Your task to perform on an android device: toggle notification dots Image 0: 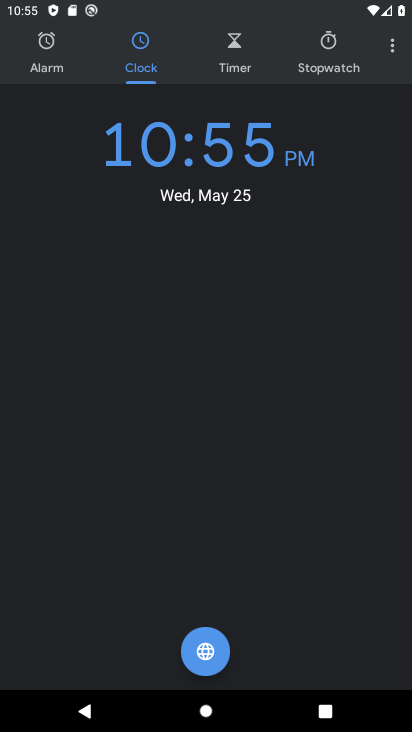
Step 0: press home button
Your task to perform on an android device: toggle notification dots Image 1: 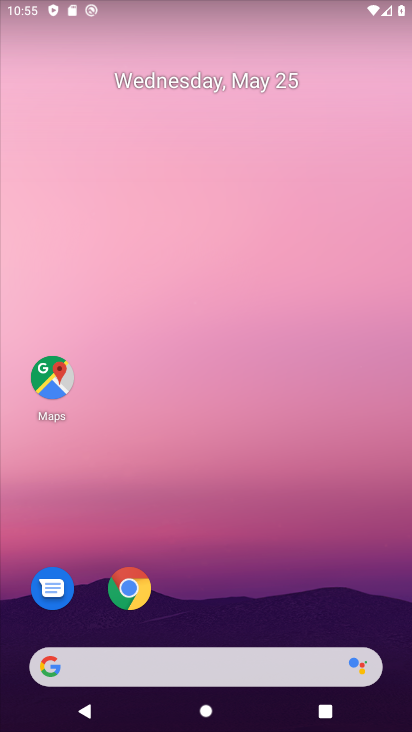
Step 1: drag from (206, 614) to (221, 92)
Your task to perform on an android device: toggle notification dots Image 2: 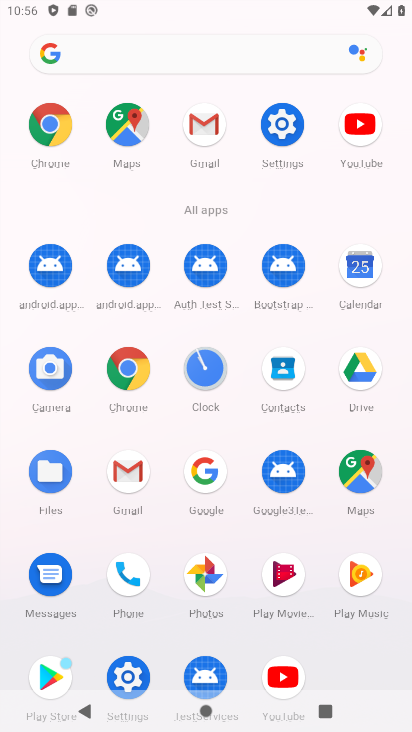
Step 2: click (277, 117)
Your task to perform on an android device: toggle notification dots Image 3: 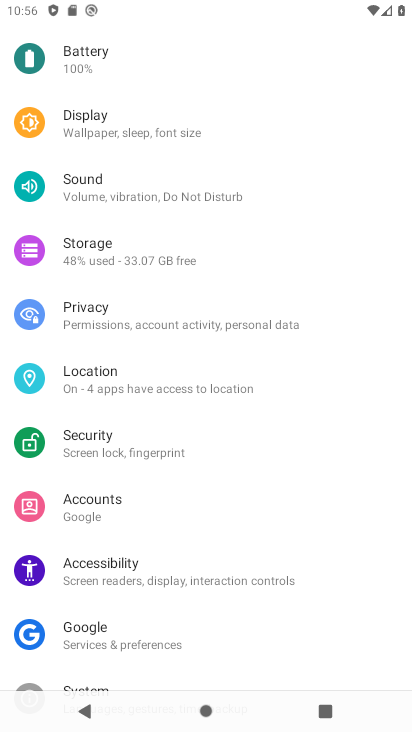
Step 3: drag from (204, 140) to (179, 607)
Your task to perform on an android device: toggle notification dots Image 4: 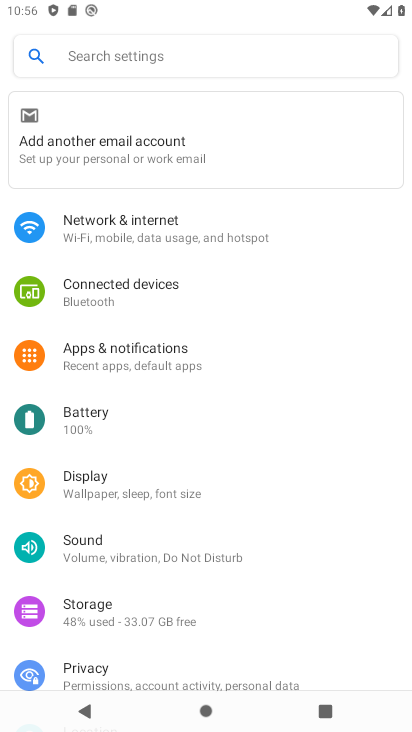
Step 4: click (101, 360)
Your task to perform on an android device: toggle notification dots Image 5: 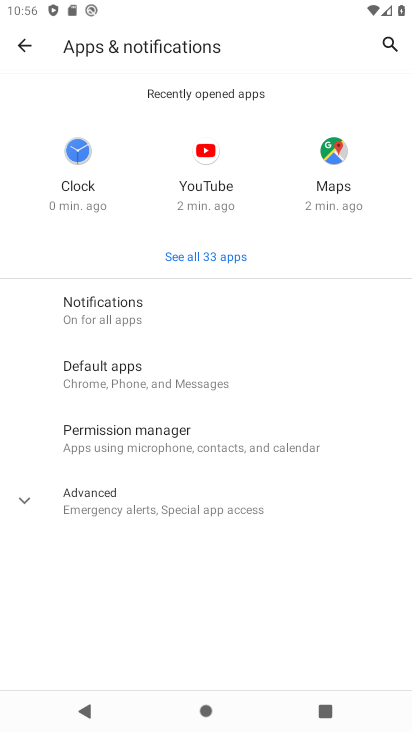
Step 5: click (131, 315)
Your task to perform on an android device: toggle notification dots Image 6: 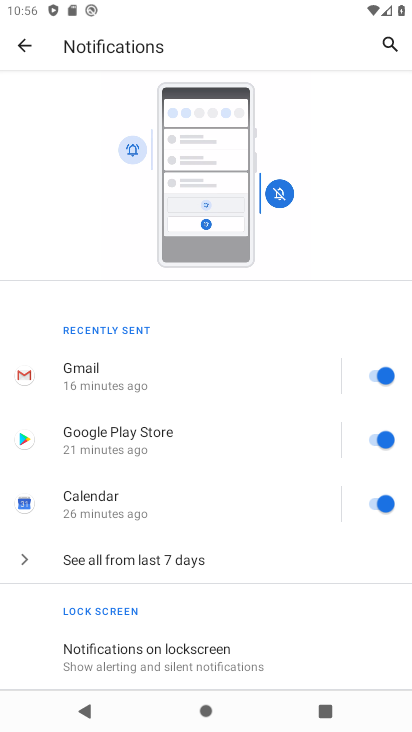
Step 6: drag from (177, 676) to (211, 314)
Your task to perform on an android device: toggle notification dots Image 7: 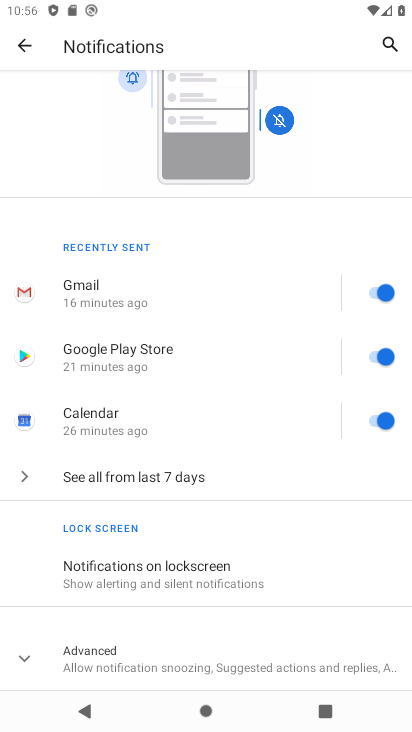
Step 7: drag from (141, 642) to (255, 299)
Your task to perform on an android device: toggle notification dots Image 8: 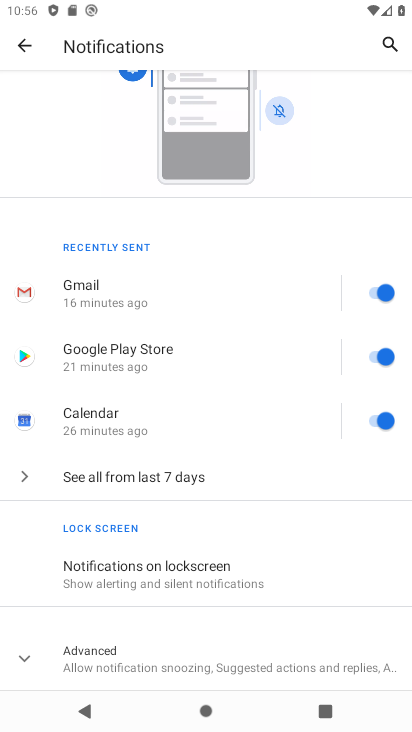
Step 8: drag from (149, 616) to (176, 292)
Your task to perform on an android device: toggle notification dots Image 9: 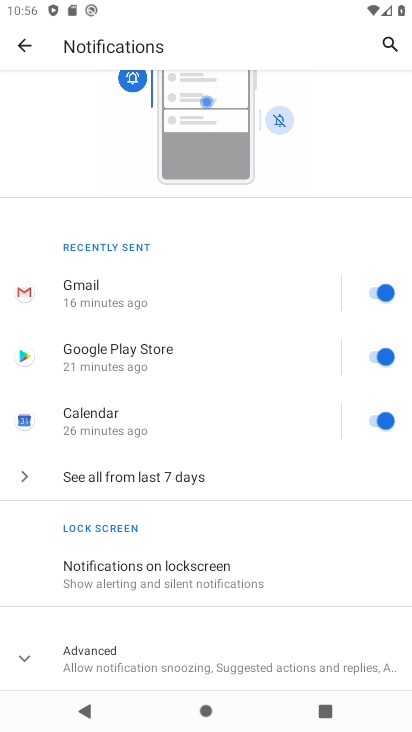
Step 9: click (125, 584)
Your task to perform on an android device: toggle notification dots Image 10: 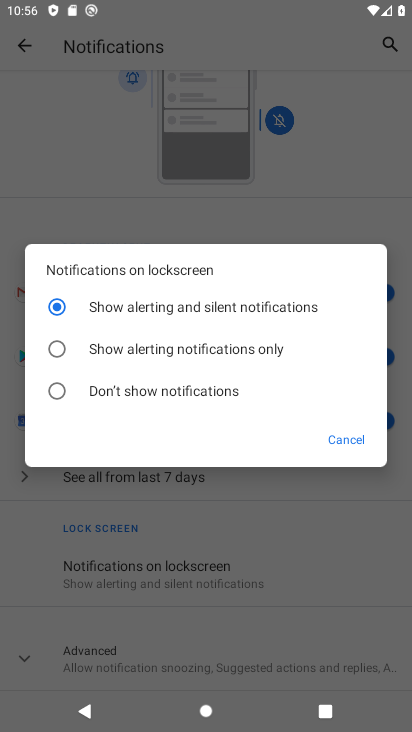
Step 10: click (127, 607)
Your task to perform on an android device: toggle notification dots Image 11: 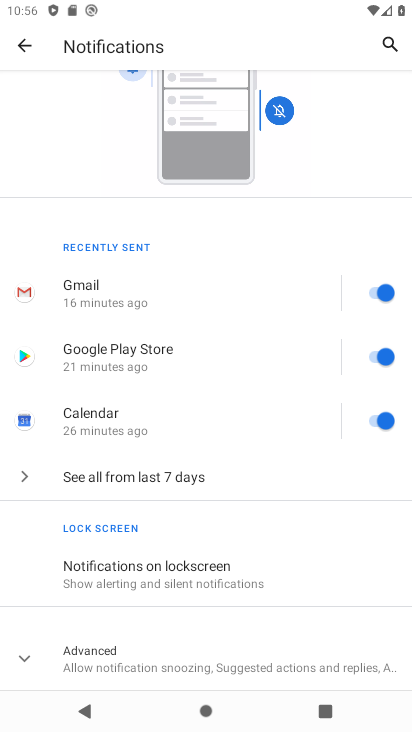
Step 11: click (72, 659)
Your task to perform on an android device: toggle notification dots Image 12: 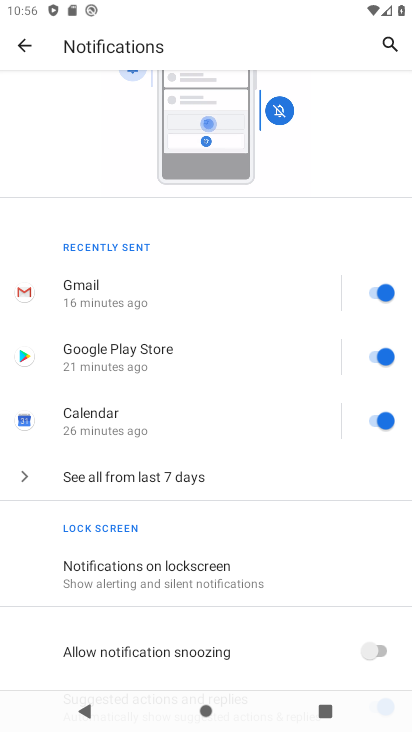
Step 12: drag from (72, 659) to (156, 247)
Your task to perform on an android device: toggle notification dots Image 13: 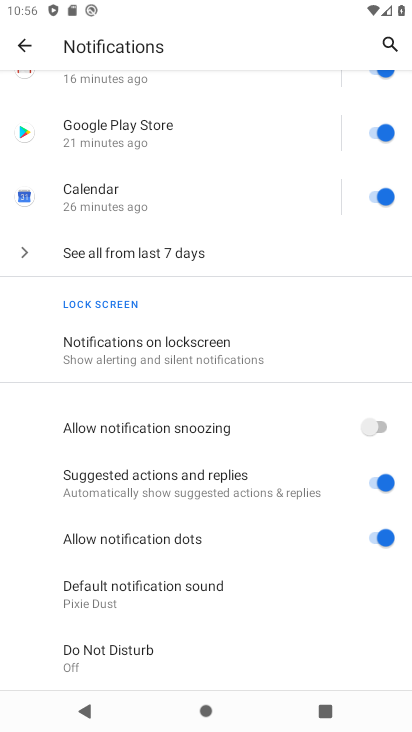
Step 13: drag from (230, 338) to (211, 238)
Your task to perform on an android device: toggle notification dots Image 14: 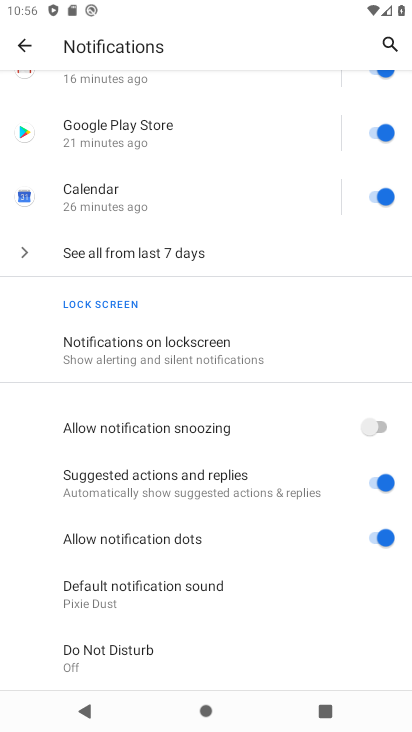
Step 14: click (383, 541)
Your task to perform on an android device: toggle notification dots Image 15: 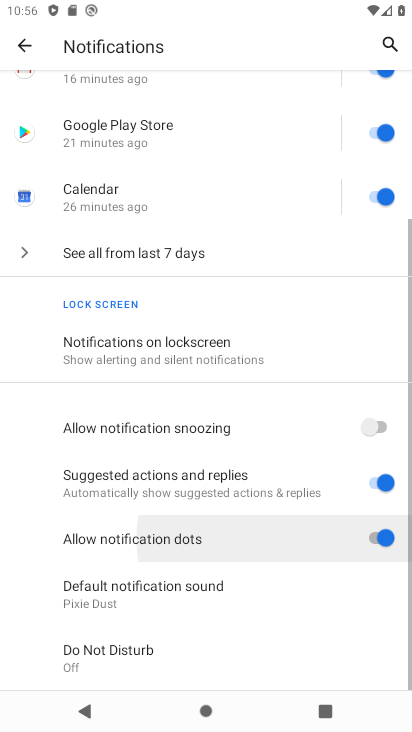
Step 15: click (383, 541)
Your task to perform on an android device: toggle notification dots Image 16: 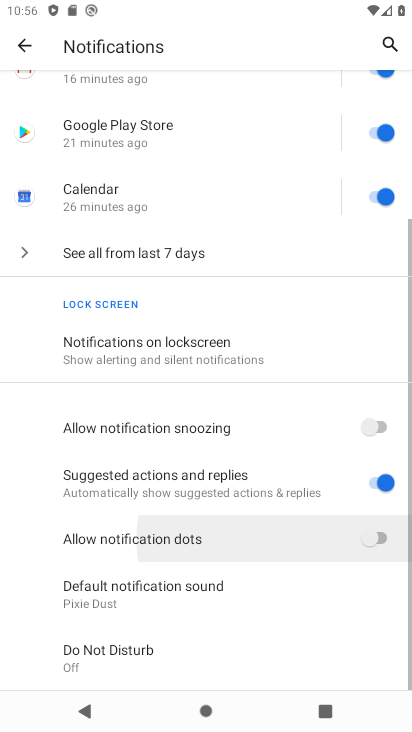
Step 16: click (383, 541)
Your task to perform on an android device: toggle notification dots Image 17: 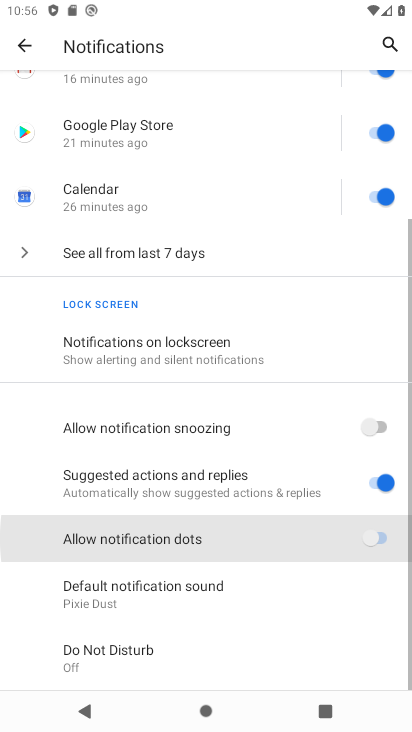
Step 17: click (383, 541)
Your task to perform on an android device: toggle notification dots Image 18: 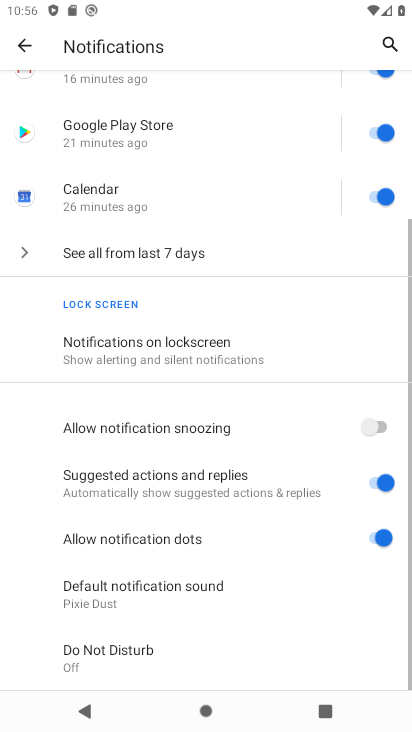
Step 18: click (383, 541)
Your task to perform on an android device: toggle notification dots Image 19: 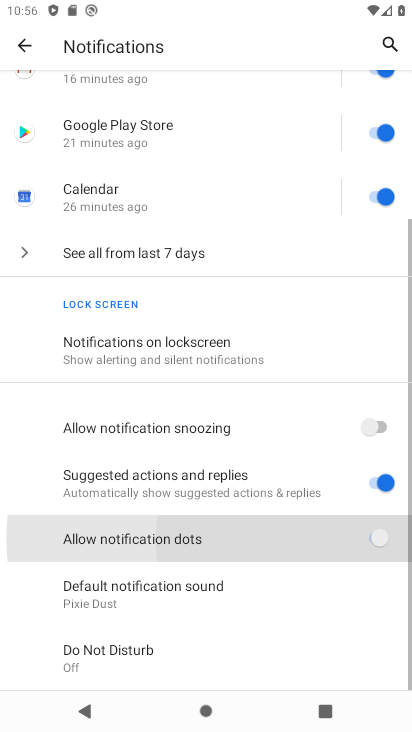
Step 19: click (383, 541)
Your task to perform on an android device: toggle notification dots Image 20: 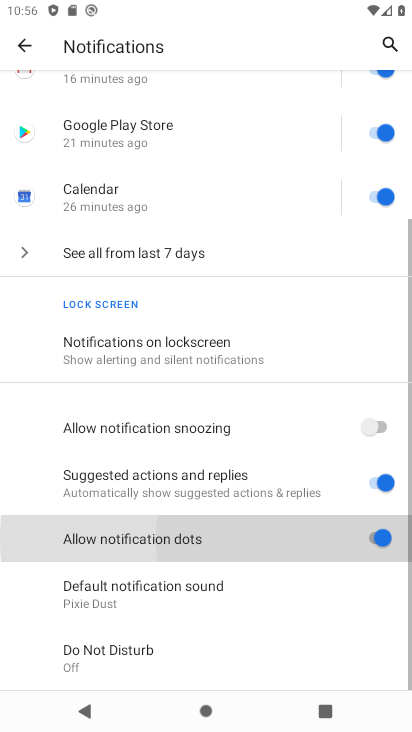
Step 20: click (383, 541)
Your task to perform on an android device: toggle notification dots Image 21: 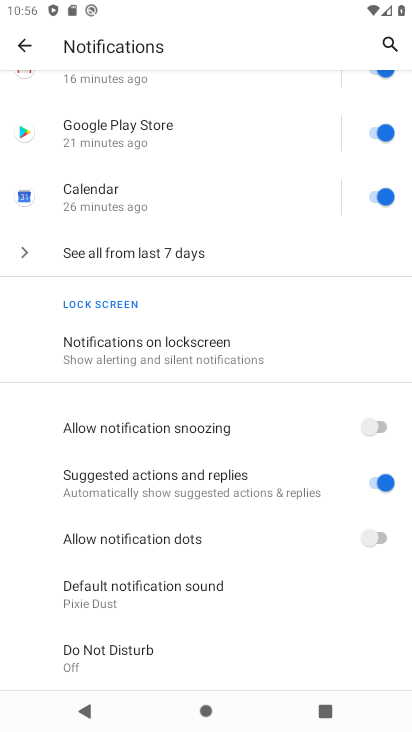
Step 21: task complete